Your task to perform on an android device: turn pop-ups off in chrome Image 0: 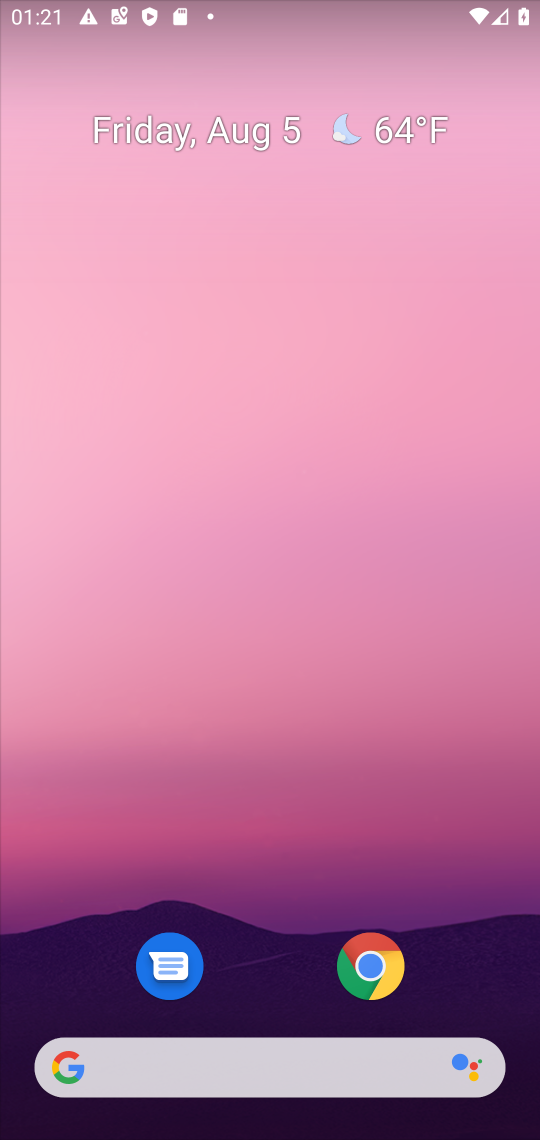
Step 0: drag from (294, 896) to (283, 463)
Your task to perform on an android device: turn pop-ups off in chrome Image 1: 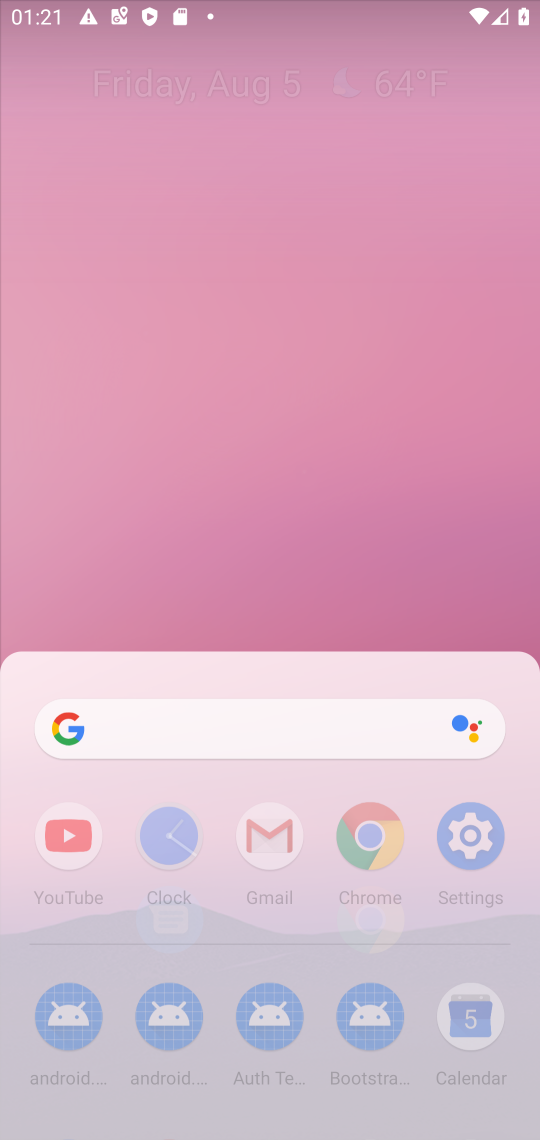
Step 1: drag from (304, 256) to (295, 25)
Your task to perform on an android device: turn pop-ups off in chrome Image 2: 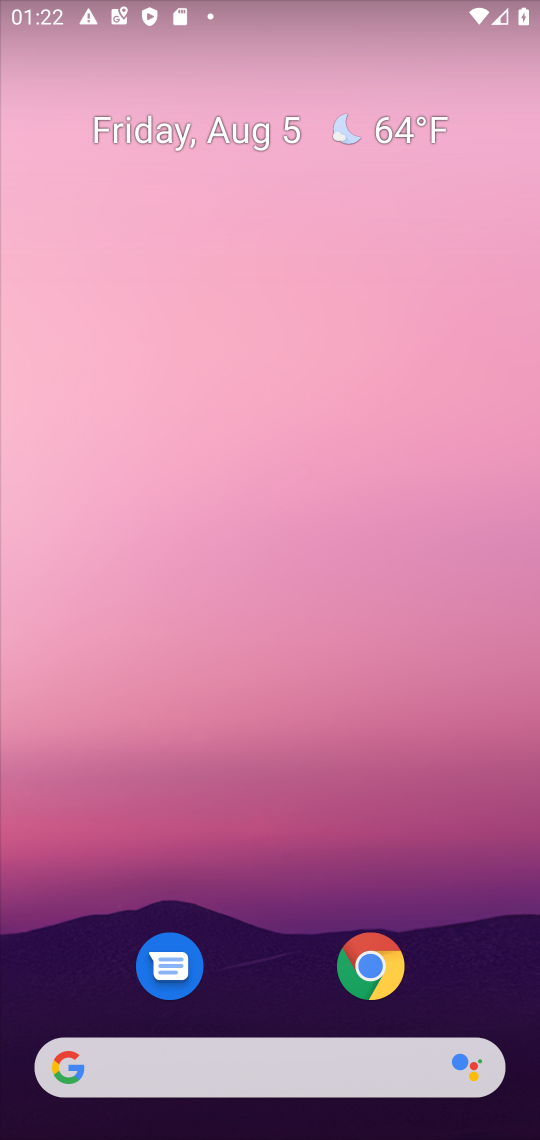
Step 2: click (363, 979)
Your task to perform on an android device: turn pop-ups off in chrome Image 3: 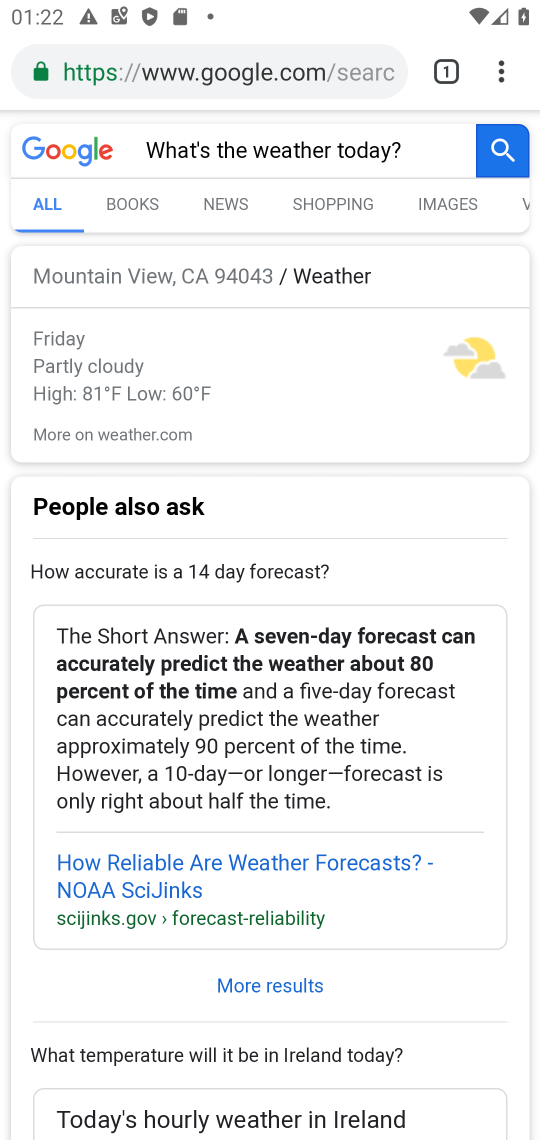
Step 3: click (496, 72)
Your task to perform on an android device: turn pop-ups off in chrome Image 4: 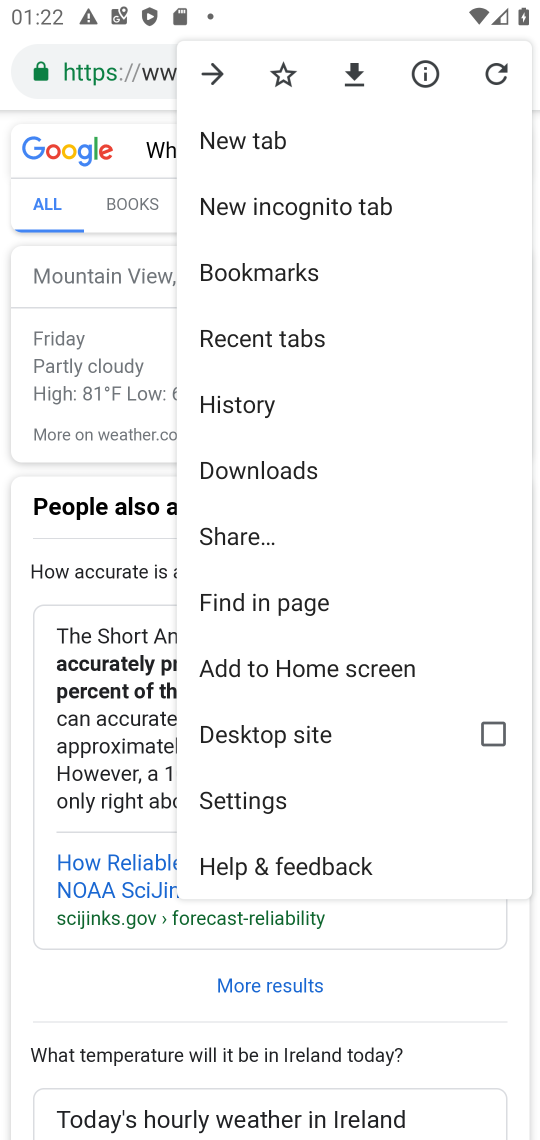
Step 4: click (255, 787)
Your task to perform on an android device: turn pop-ups off in chrome Image 5: 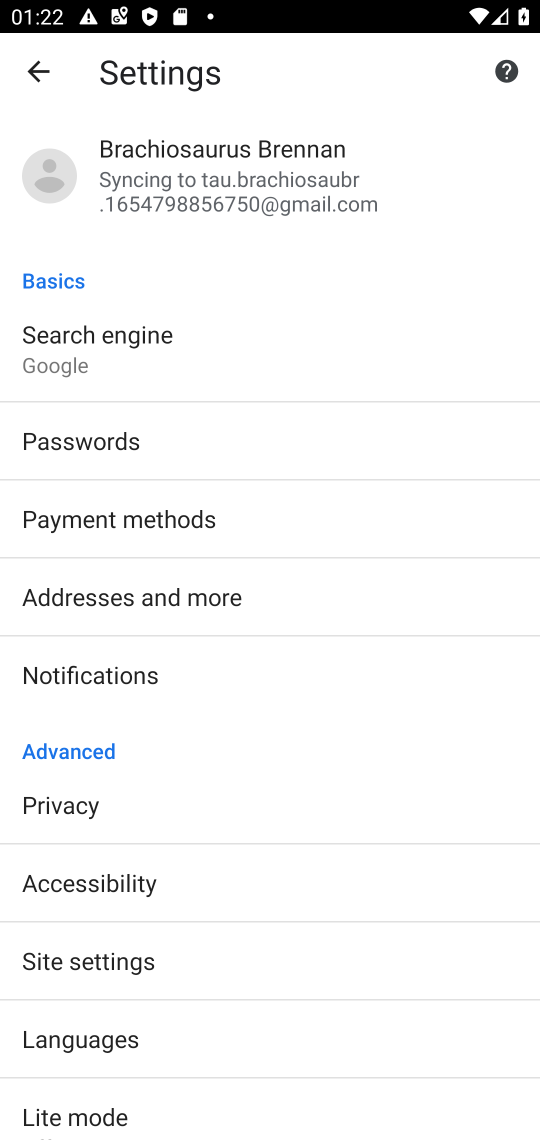
Step 5: click (130, 953)
Your task to perform on an android device: turn pop-ups off in chrome Image 6: 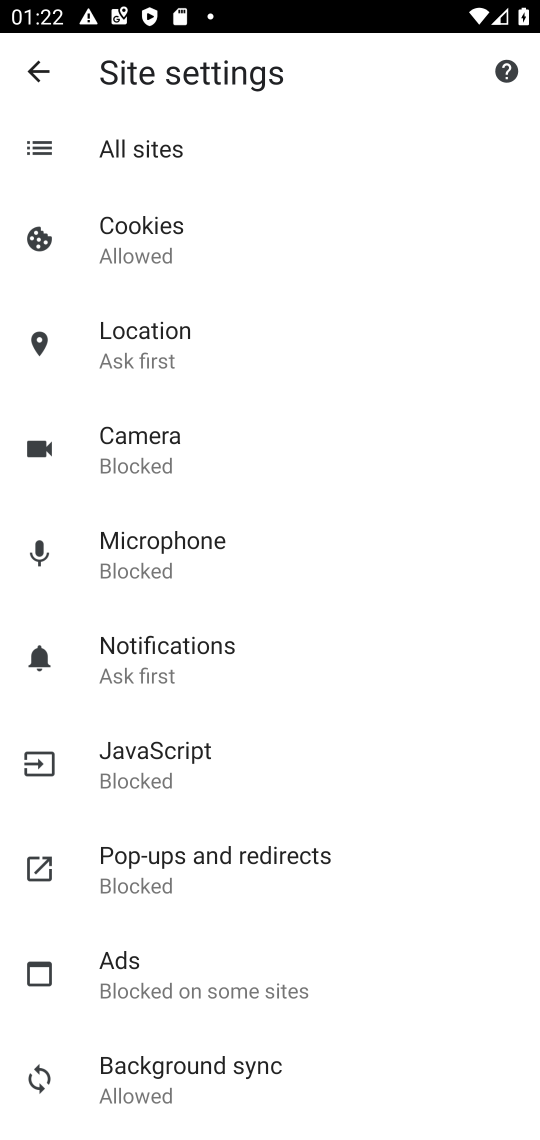
Step 6: click (137, 867)
Your task to perform on an android device: turn pop-ups off in chrome Image 7: 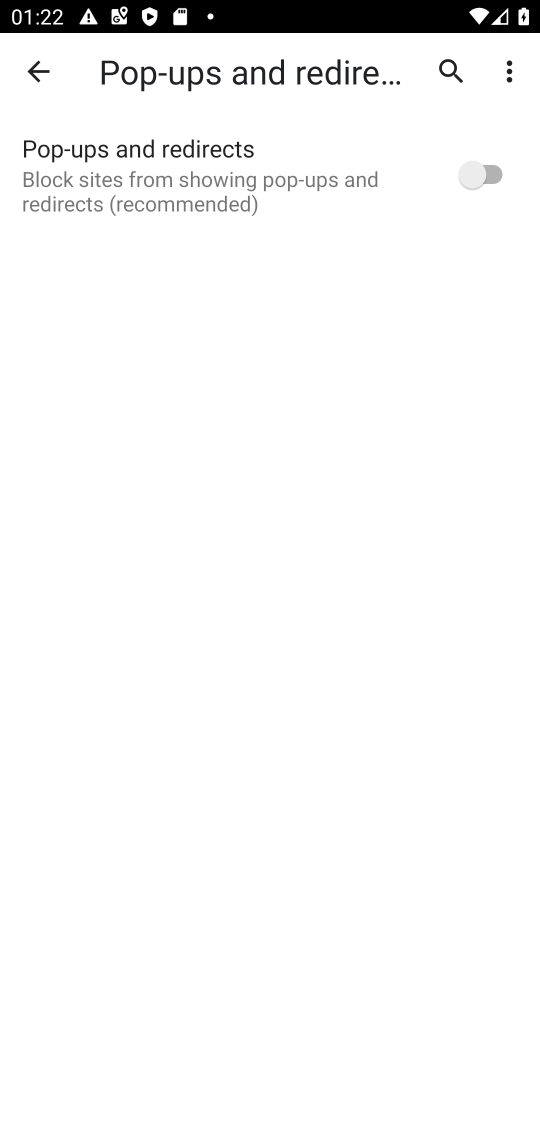
Step 7: task complete